Your task to perform on an android device: change your default location settings in chrome Image 0: 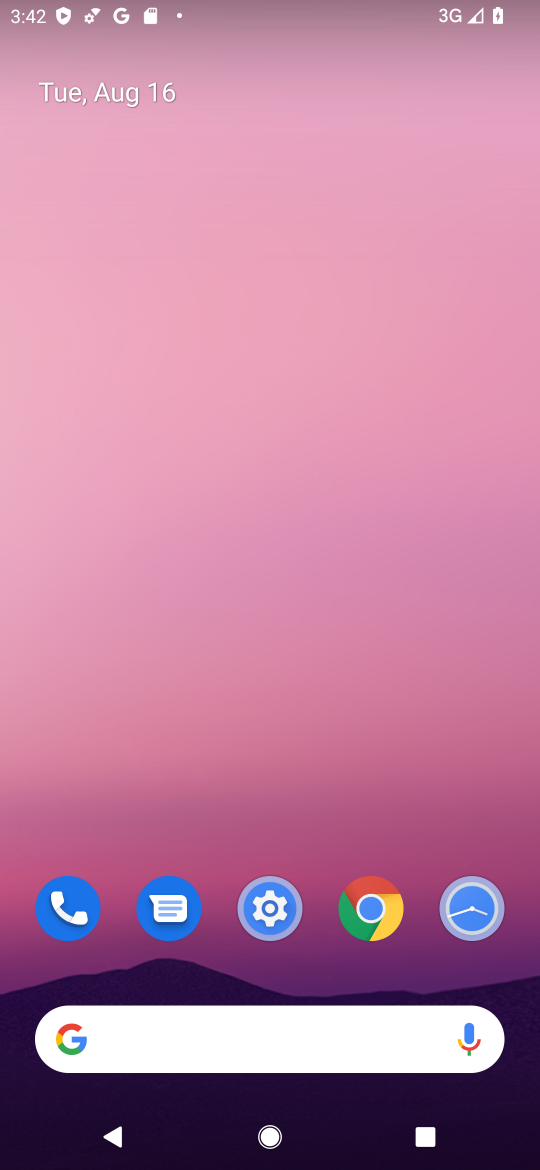
Step 0: click (376, 907)
Your task to perform on an android device: change your default location settings in chrome Image 1: 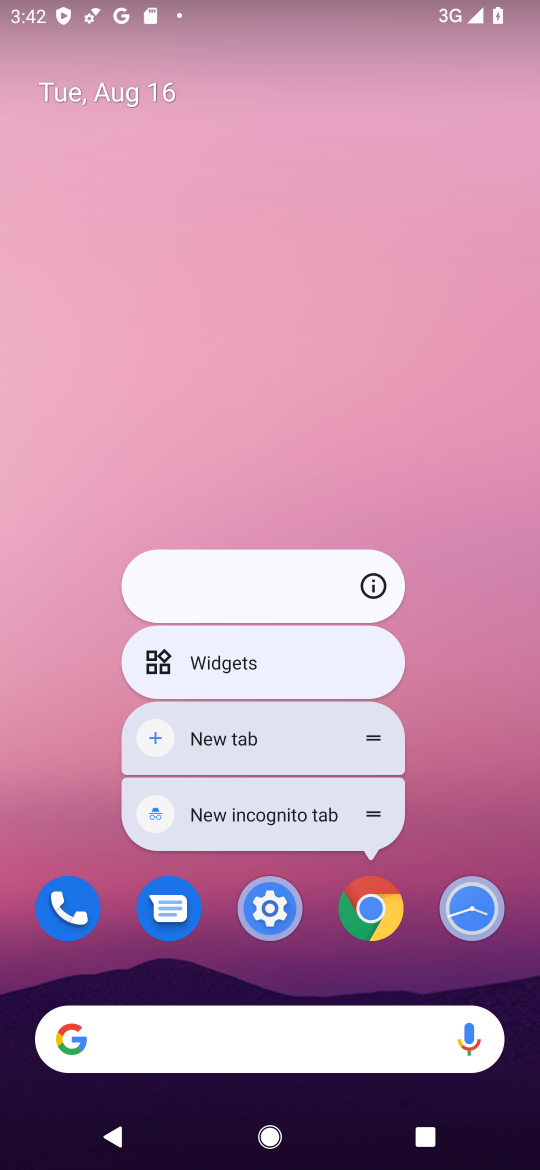
Step 1: click (373, 912)
Your task to perform on an android device: change your default location settings in chrome Image 2: 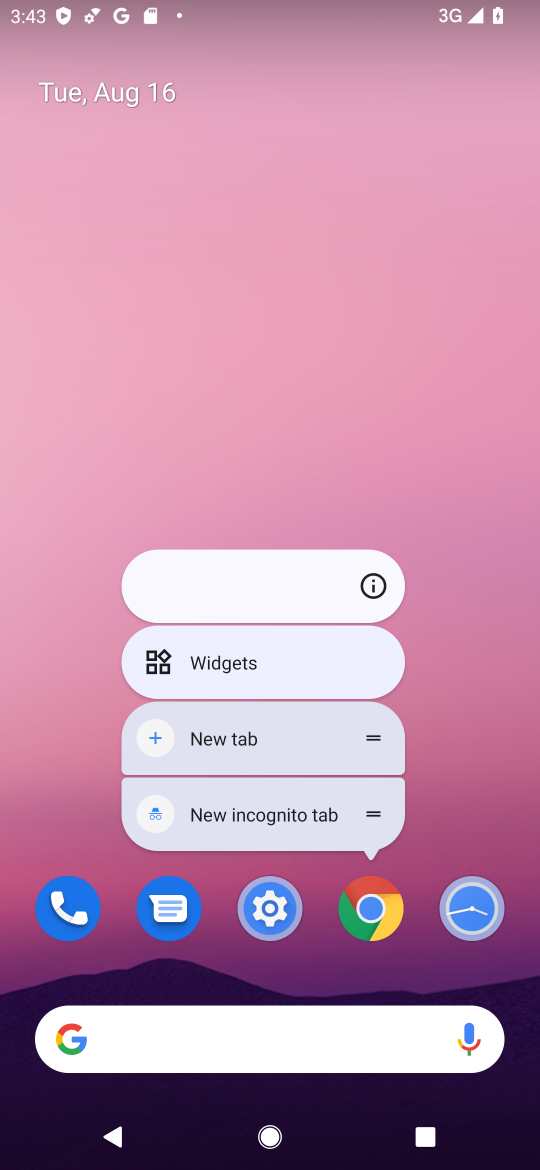
Step 2: click (372, 912)
Your task to perform on an android device: change your default location settings in chrome Image 3: 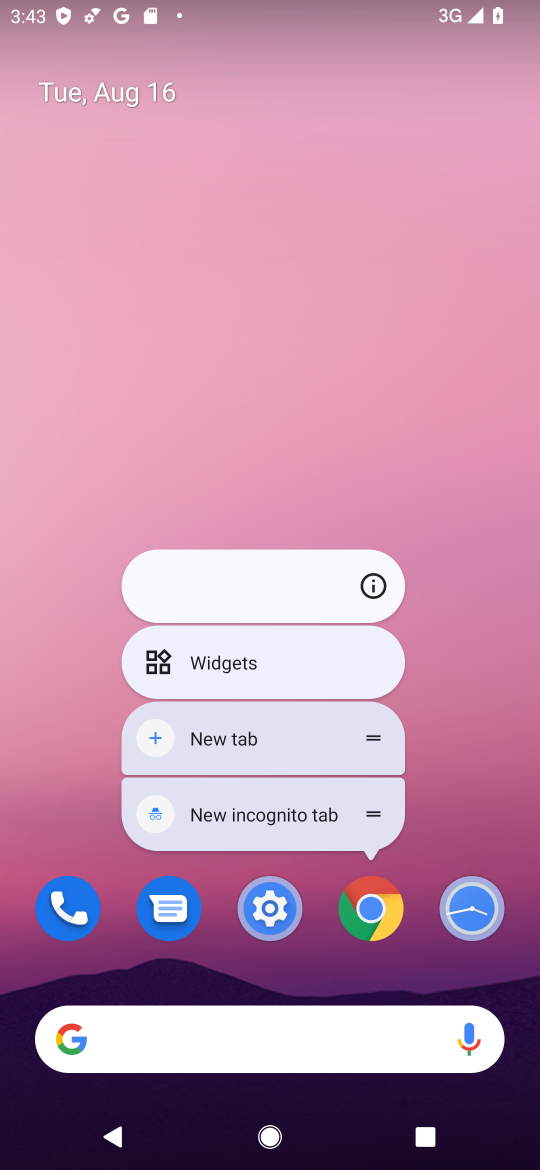
Step 3: click (372, 915)
Your task to perform on an android device: change your default location settings in chrome Image 4: 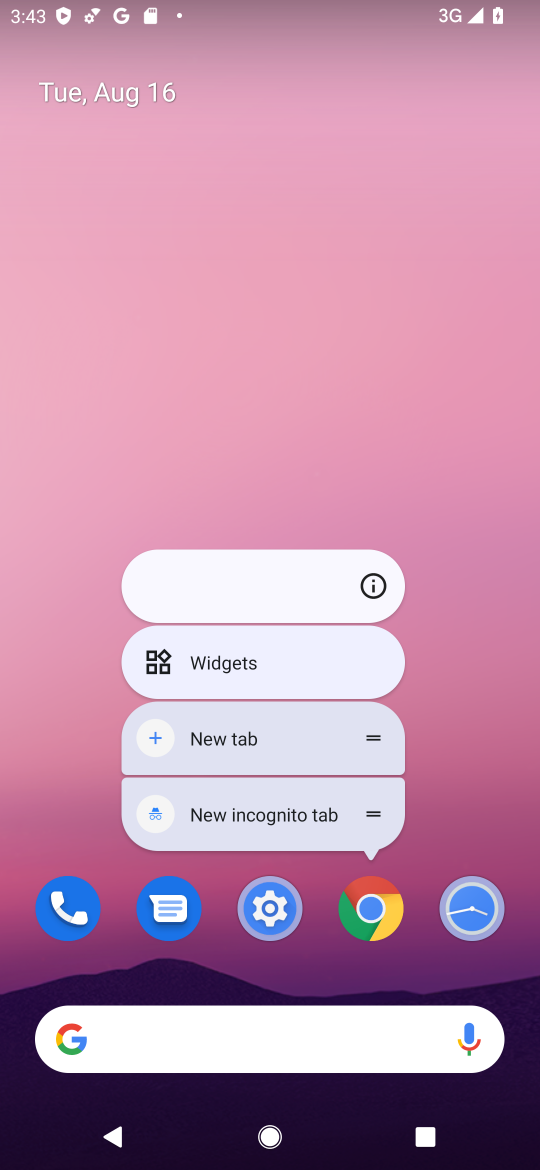
Step 4: click (372, 915)
Your task to perform on an android device: change your default location settings in chrome Image 5: 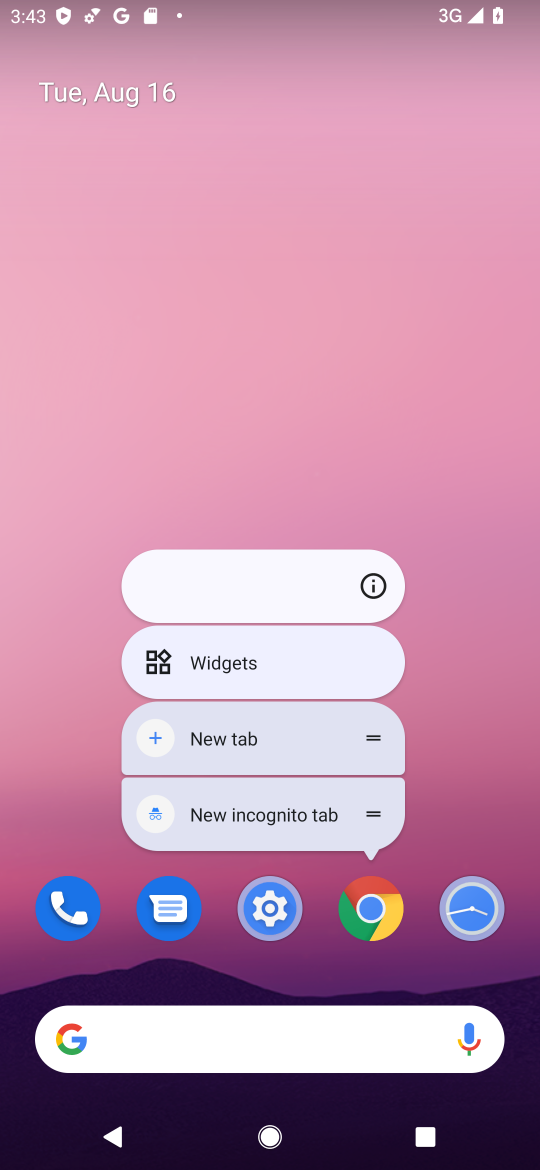
Step 5: click (378, 905)
Your task to perform on an android device: change your default location settings in chrome Image 6: 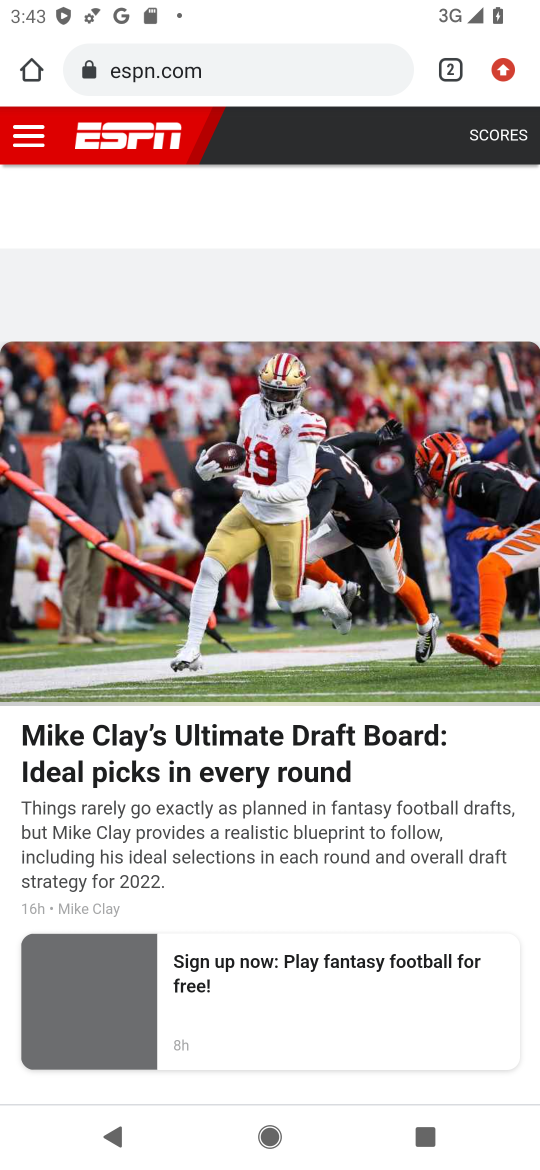
Step 6: drag from (506, 76) to (296, 956)
Your task to perform on an android device: change your default location settings in chrome Image 7: 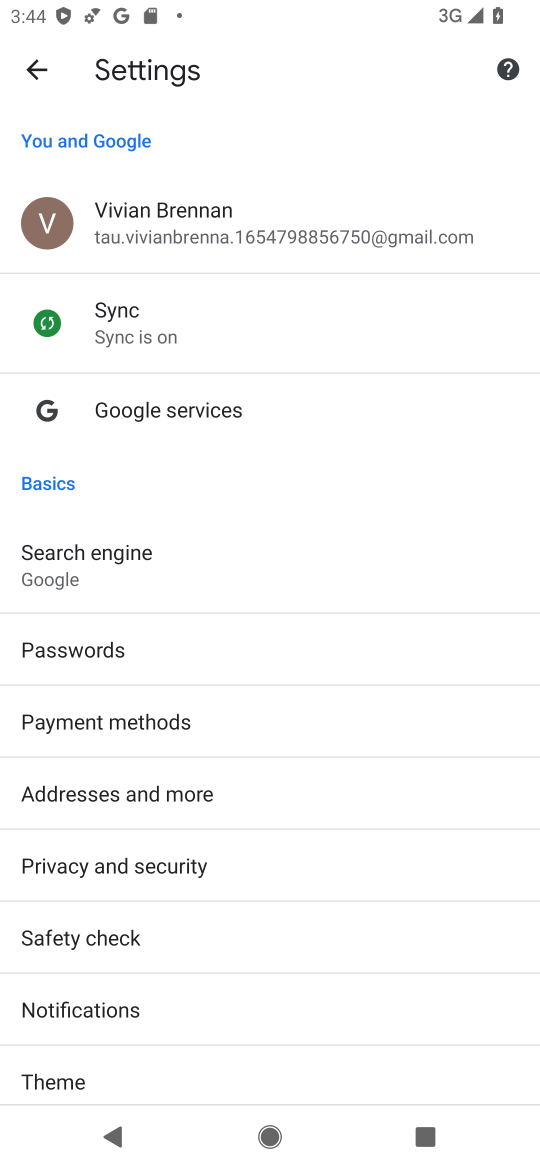
Step 7: drag from (146, 1041) to (385, 243)
Your task to perform on an android device: change your default location settings in chrome Image 8: 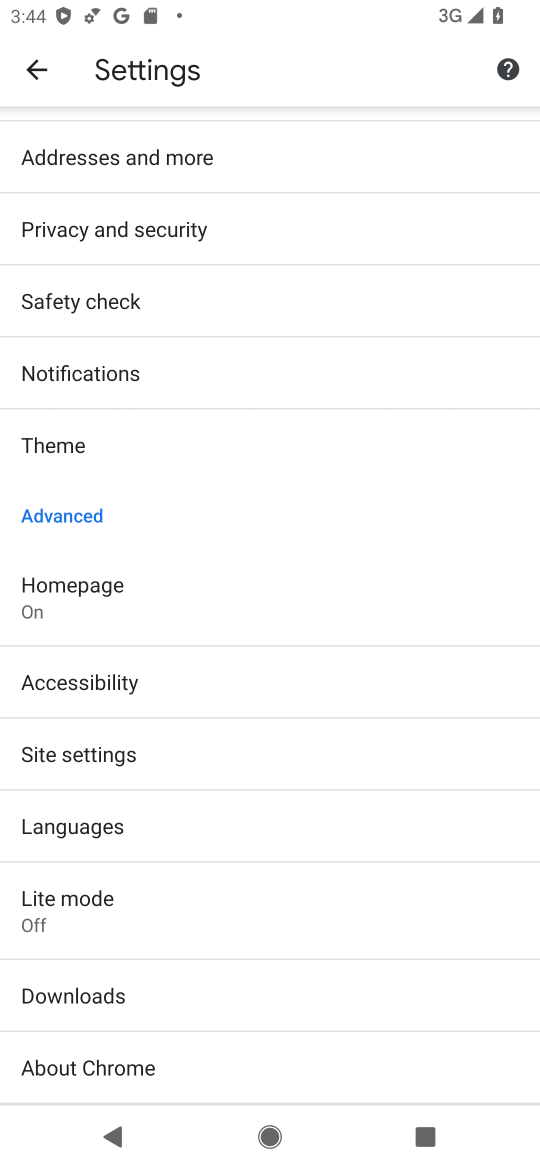
Step 8: click (96, 747)
Your task to perform on an android device: change your default location settings in chrome Image 9: 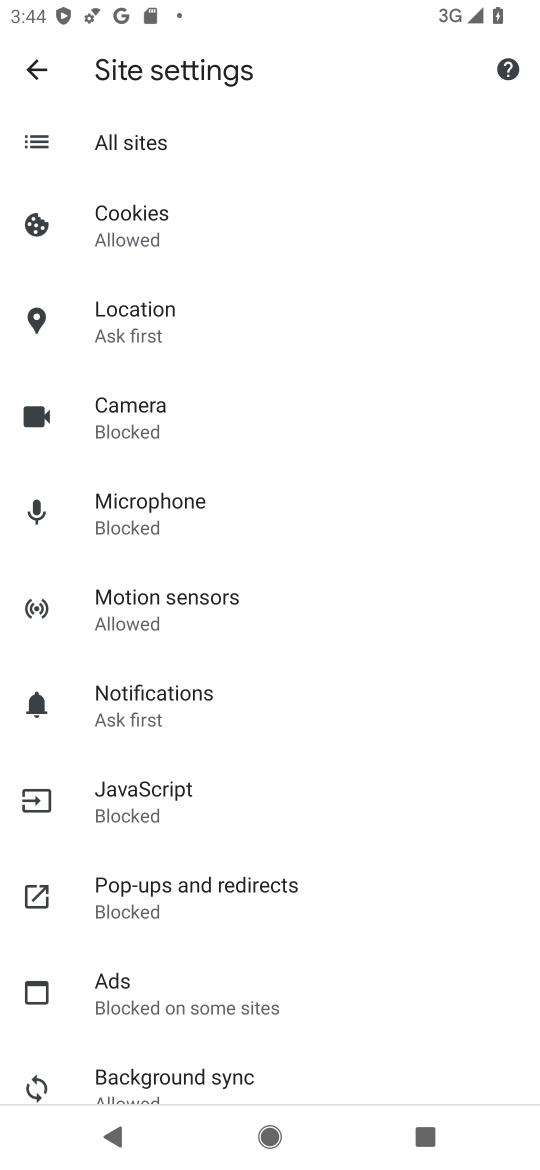
Step 9: click (156, 318)
Your task to perform on an android device: change your default location settings in chrome Image 10: 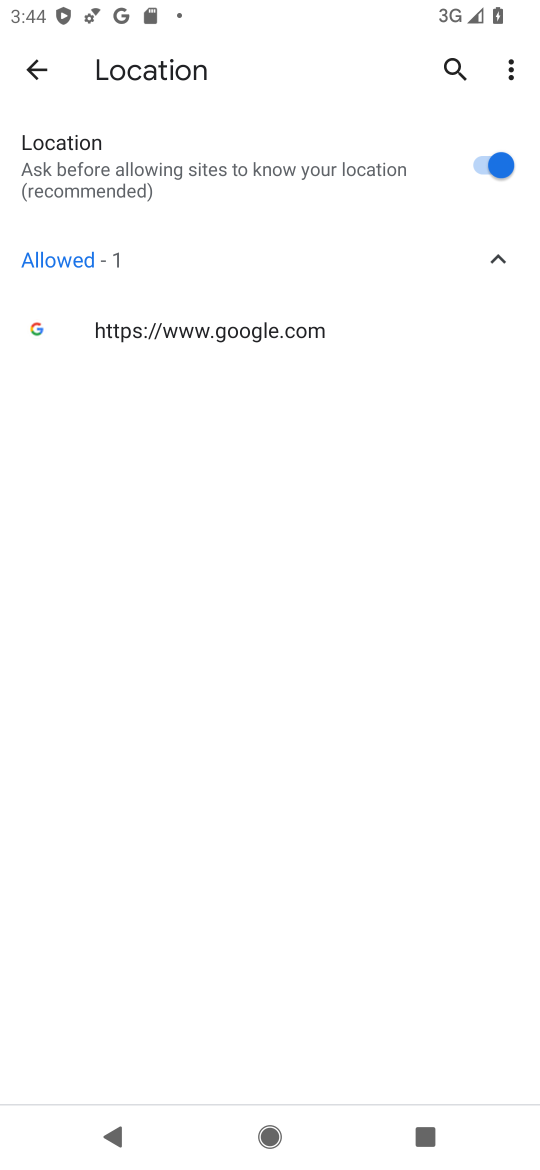
Step 10: click (487, 153)
Your task to perform on an android device: change your default location settings in chrome Image 11: 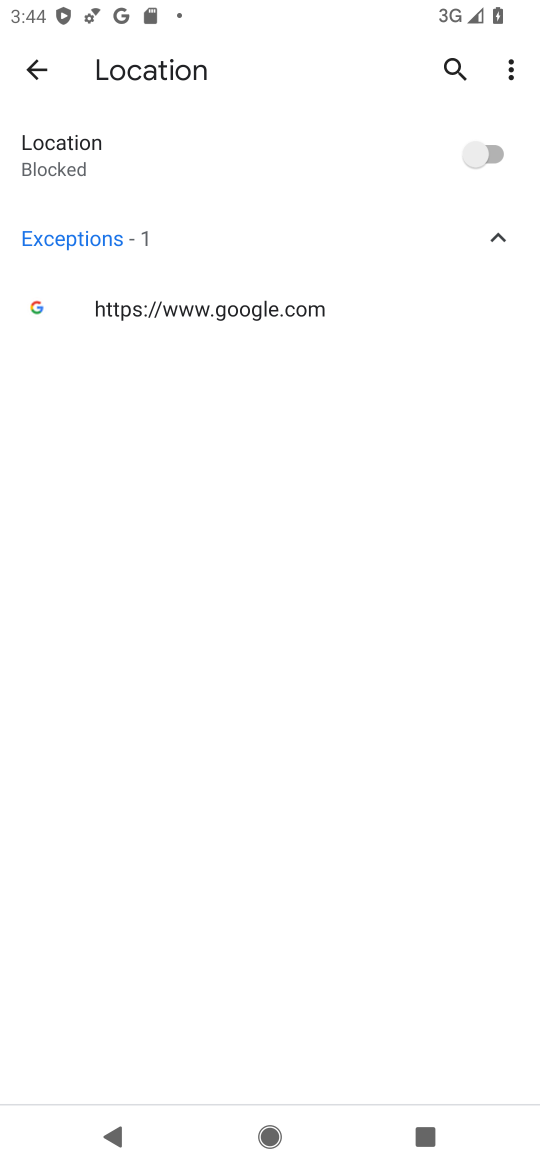
Step 11: task complete